Your task to perform on an android device: Go to location settings Image 0: 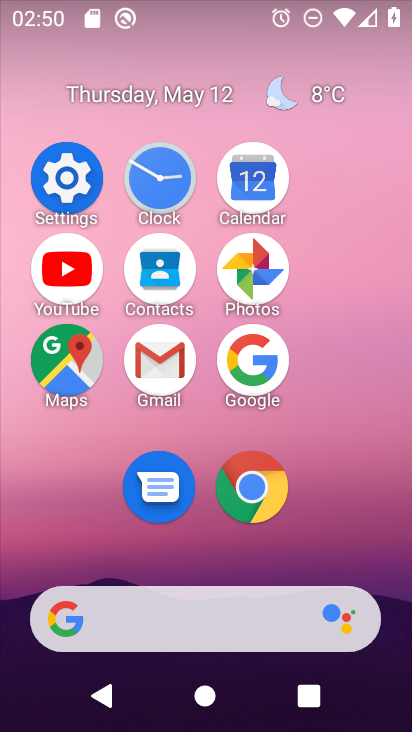
Step 0: click (68, 189)
Your task to perform on an android device: Go to location settings Image 1: 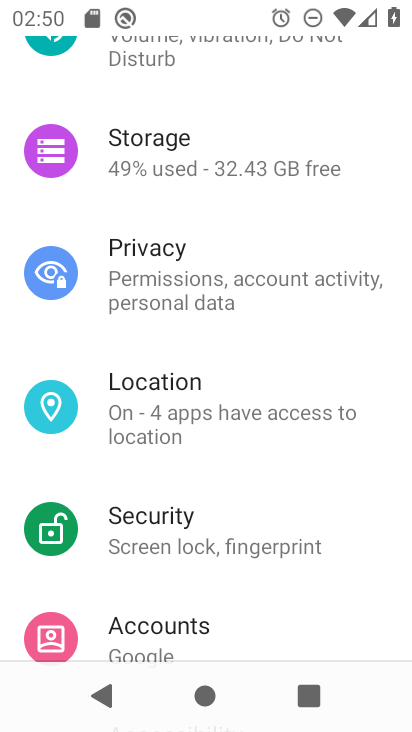
Step 1: click (259, 394)
Your task to perform on an android device: Go to location settings Image 2: 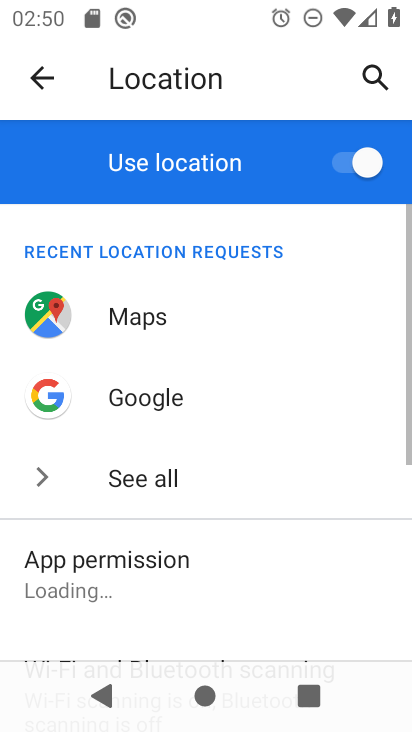
Step 2: task complete